Your task to perform on an android device: Look up the best rated headphones on Amazon. Image 0: 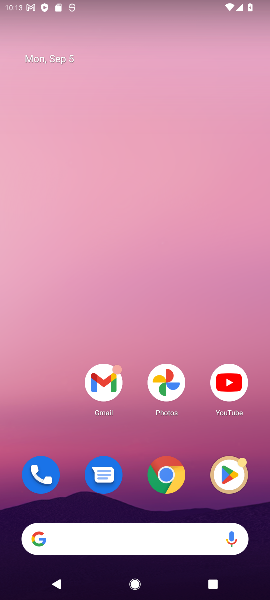
Step 0: click (220, 365)
Your task to perform on an android device: Look up the best rated headphones on Amazon. Image 1: 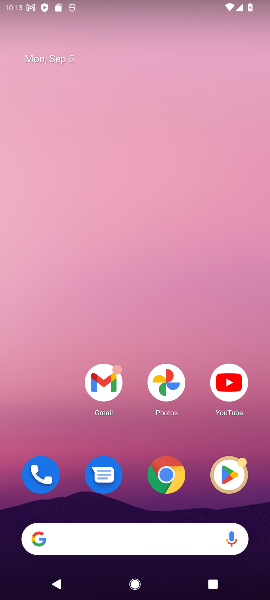
Step 1: task complete